Your task to perform on an android device: turn on sleep mode Image 0: 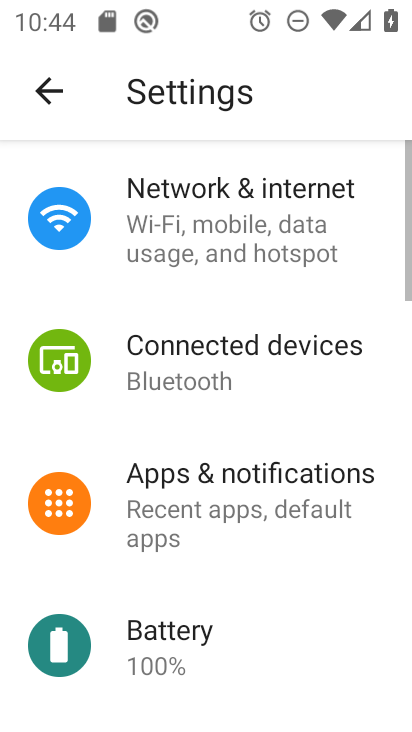
Step 0: drag from (267, 454) to (225, 94)
Your task to perform on an android device: turn on sleep mode Image 1: 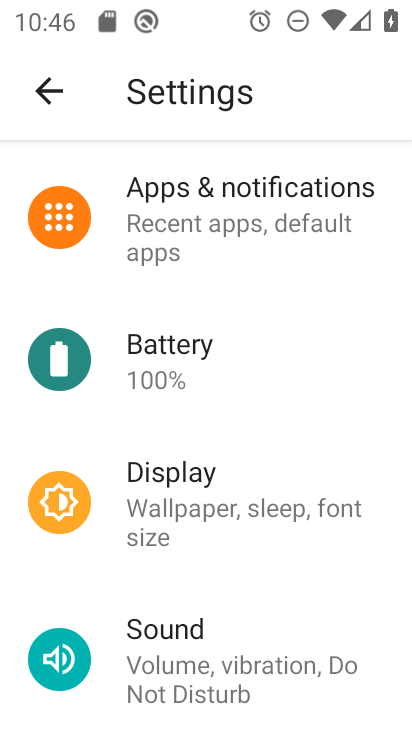
Step 1: drag from (218, 525) to (197, 341)
Your task to perform on an android device: turn on sleep mode Image 2: 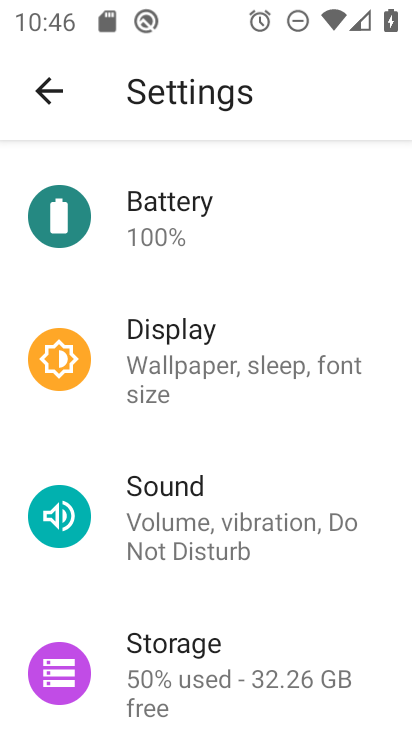
Step 2: click (200, 344)
Your task to perform on an android device: turn on sleep mode Image 3: 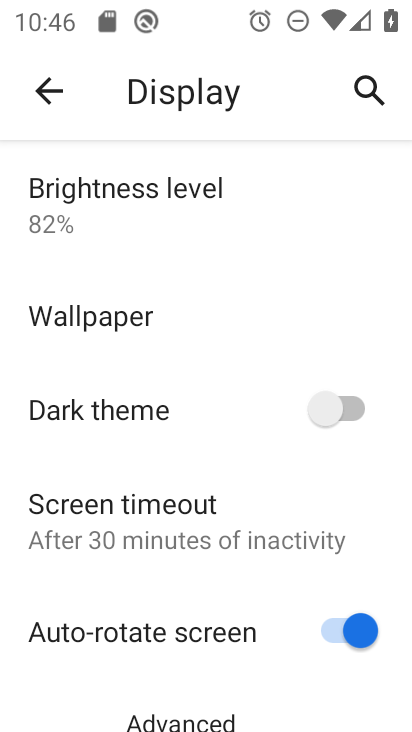
Step 3: click (216, 261)
Your task to perform on an android device: turn on sleep mode Image 4: 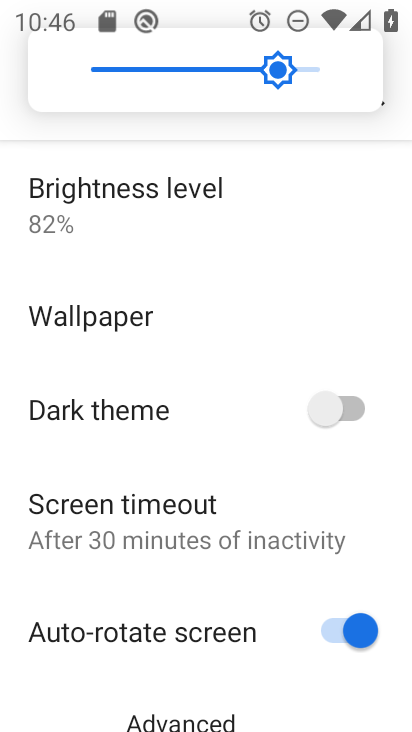
Step 4: task complete